Your task to perform on an android device: Open calendar and show me the fourth week of next month Image 0: 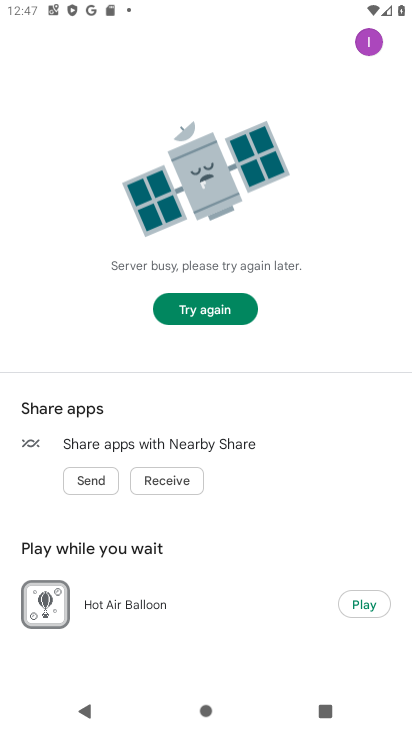
Step 0: press home button
Your task to perform on an android device: Open calendar and show me the fourth week of next month Image 1: 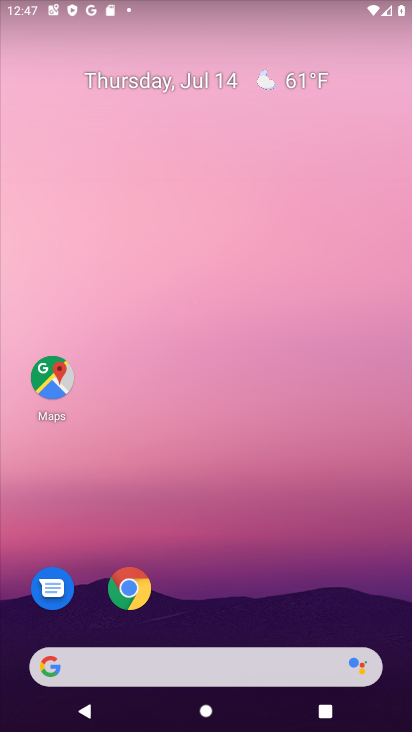
Step 1: drag from (212, 627) to (249, 20)
Your task to perform on an android device: Open calendar and show me the fourth week of next month Image 2: 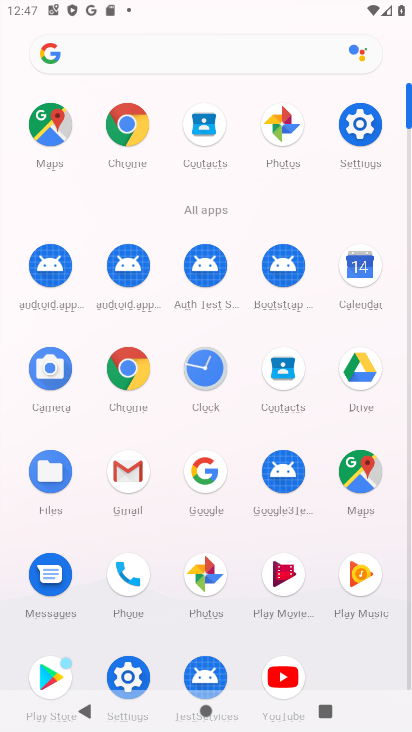
Step 2: click (376, 283)
Your task to perform on an android device: Open calendar and show me the fourth week of next month Image 3: 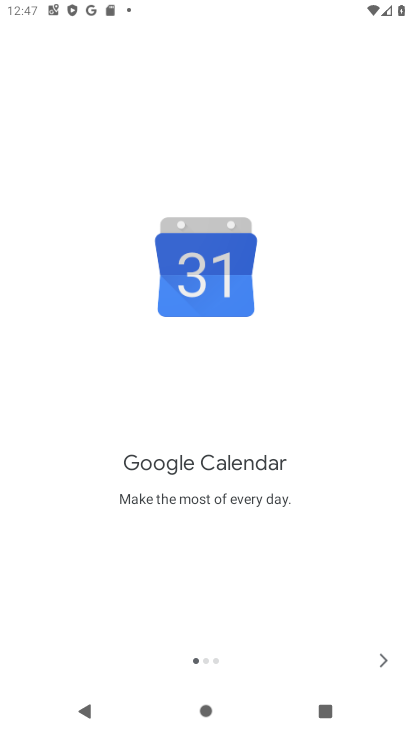
Step 3: click (389, 663)
Your task to perform on an android device: Open calendar and show me the fourth week of next month Image 4: 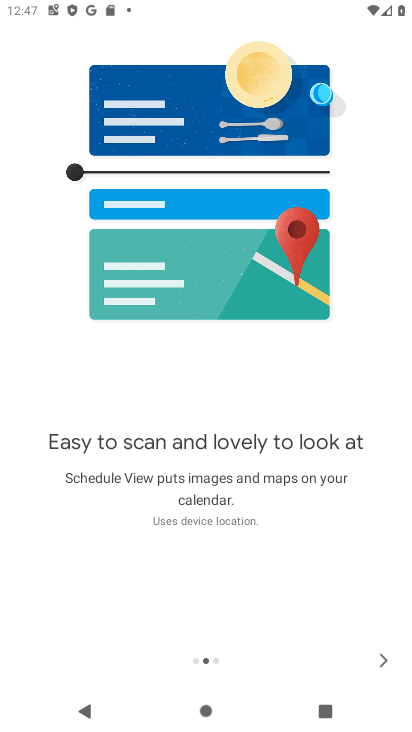
Step 4: click (378, 661)
Your task to perform on an android device: Open calendar and show me the fourth week of next month Image 5: 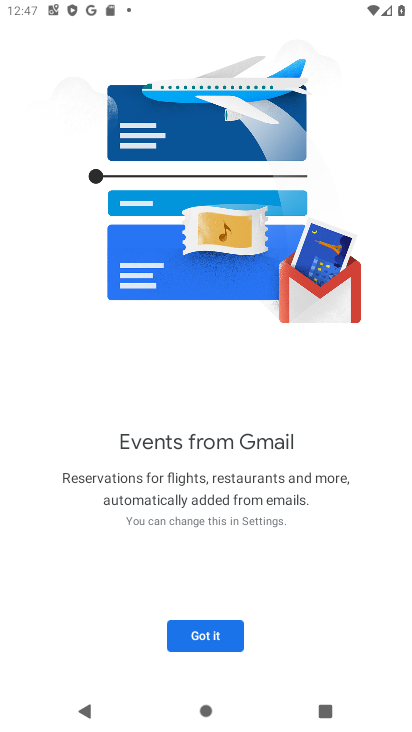
Step 5: click (198, 636)
Your task to perform on an android device: Open calendar and show me the fourth week of next month Image 6: 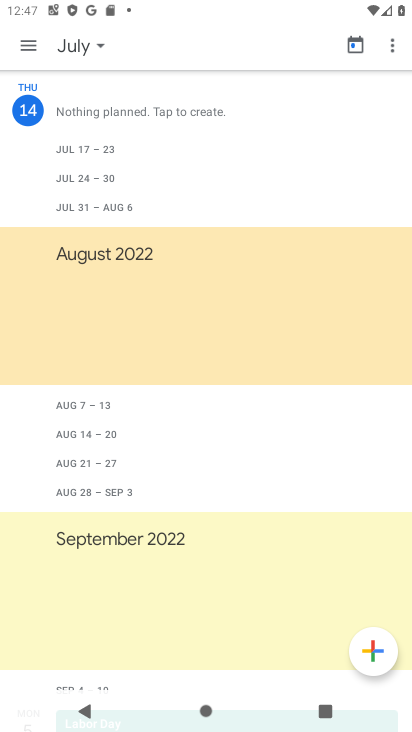
Step 6: click (22, 44)
Your task to perform on an android device: Open calendar and show me the fourth week of next month Image 7: 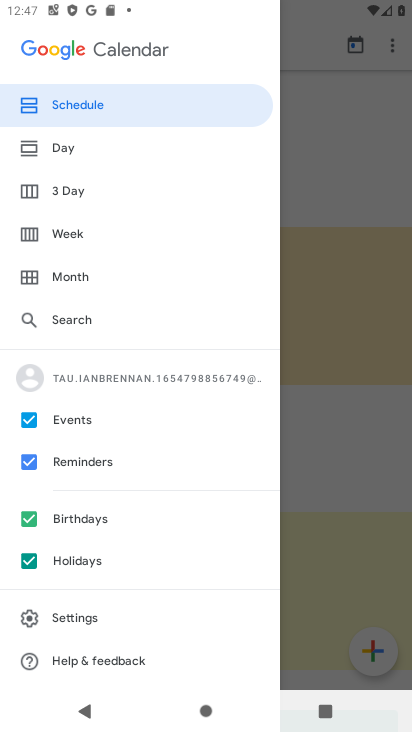
Step 7: click (68, 462)
Your task to perform on an android device: Open calendar and show me the fourth week of next month Image 8: 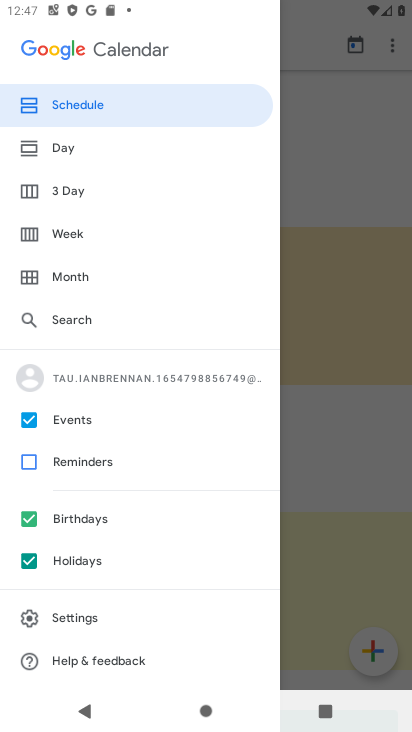
Step 8: click (68, 462)
Your task to perform on an android device: Open calendar and show me the fourth week of next month Image 9: 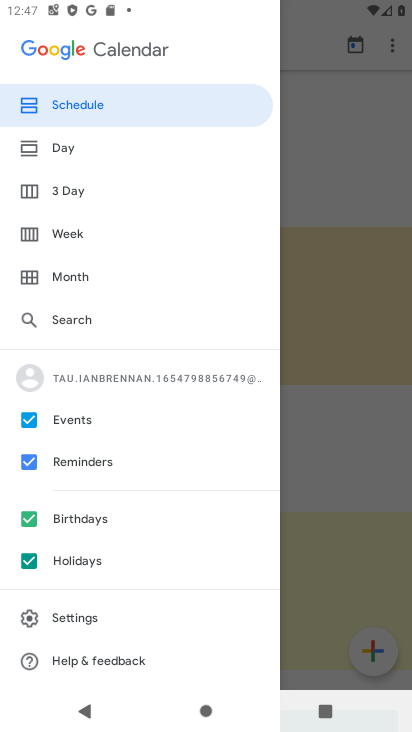
Step 9: click (83, 236)
Your task to perform on an android device: Open calendar and show me the fourth week of next month Image 10: 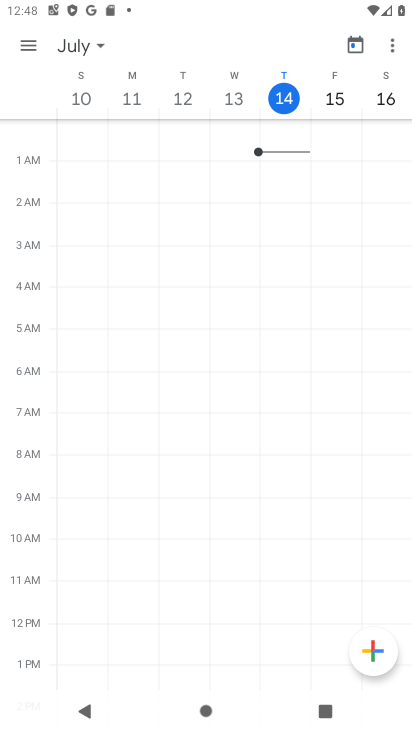
Step 10: task complete